Your task to perform on an android device: Search for seafood restaurants on Google Maps Image 0: 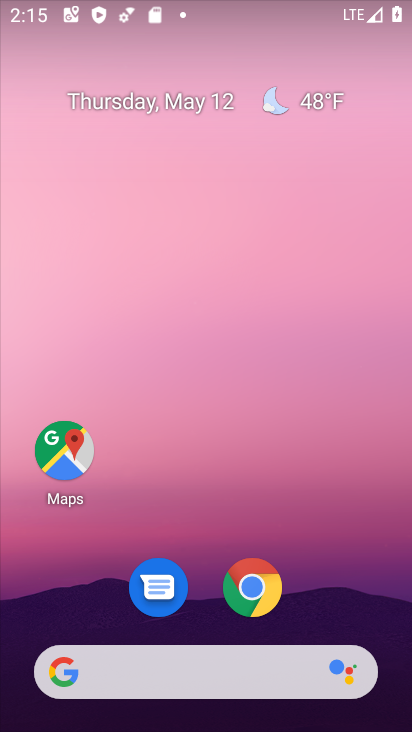
Step 0: drag from (223, 672) to (256, 242)
Your task to perform on an android device: Search for seafood restaurants on Google Maps Image 1: 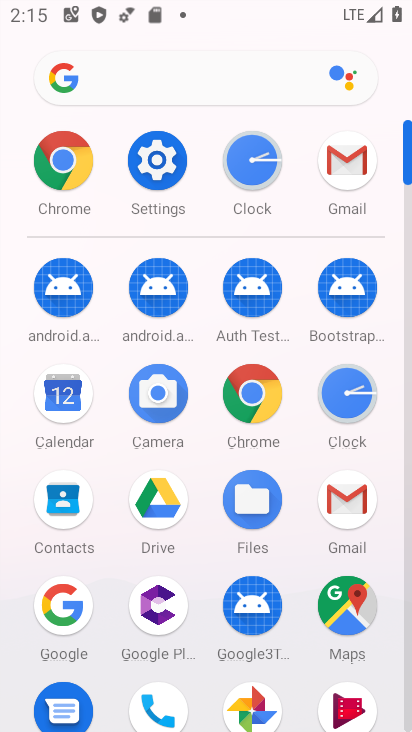
Step 1: click (344, 600)
Your task to perform on an android device: Search for seafood restaurants on Google Maps Image 2: 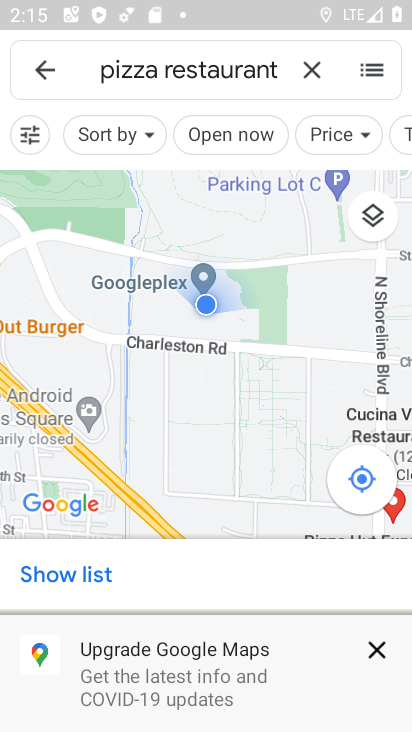
Step 2: click (307, 70)
Your task to perform on an android device: Search for seafood restaurants on Google Maps Image 3: 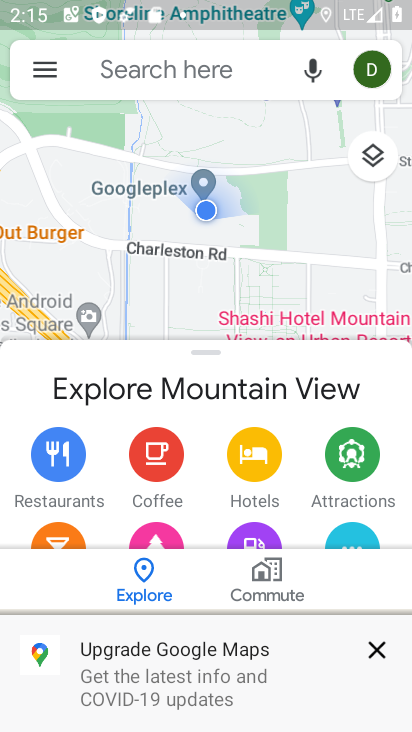
Step 3: click (233, 80)
Your task to perform on an android device: Search for seafood restaurants on Google Maps Image 4: 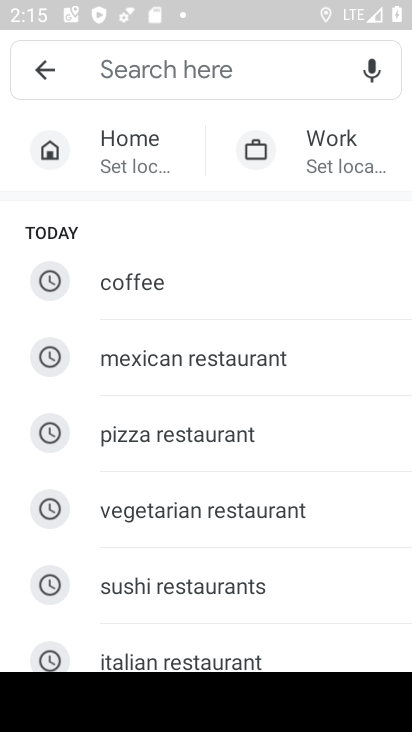
Step 4: drag from (199, 560) to (204, 237)
Your task to perform on an android device: Search for seafood restaurants on Google Maps Image 5: 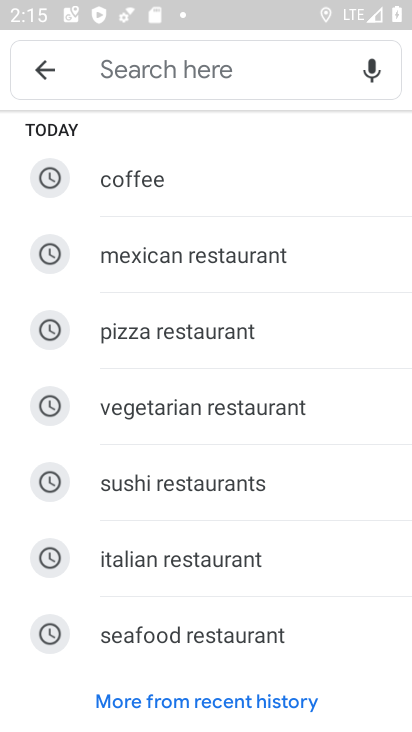
Step 5: click (162, 634)
Your task to perform on an android device: Search for seafood restaurants on Google Maps Image 6: 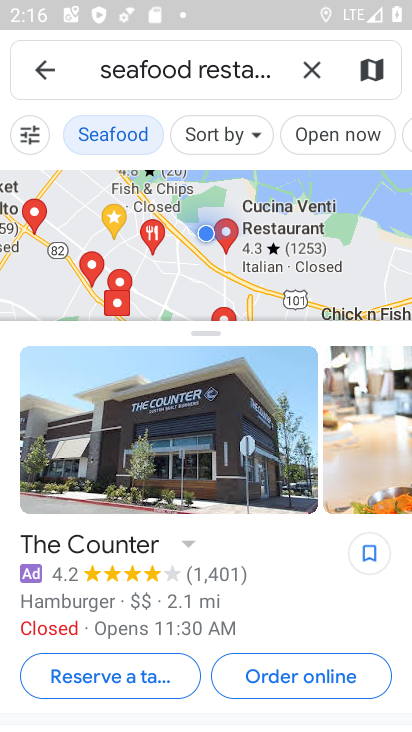
Step 6: task complete